Your task to perform on an android device: allow cookies in the chrome app Image 0: 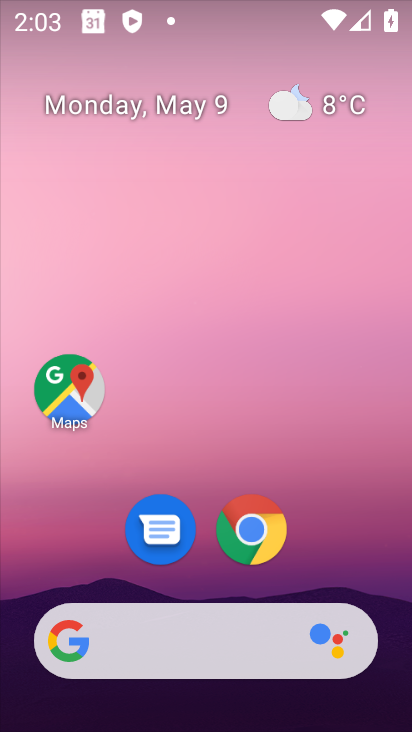
Step 0: click (267, 523)
Your task to perform on an android device: allow cookies in the chrome app Image 1: 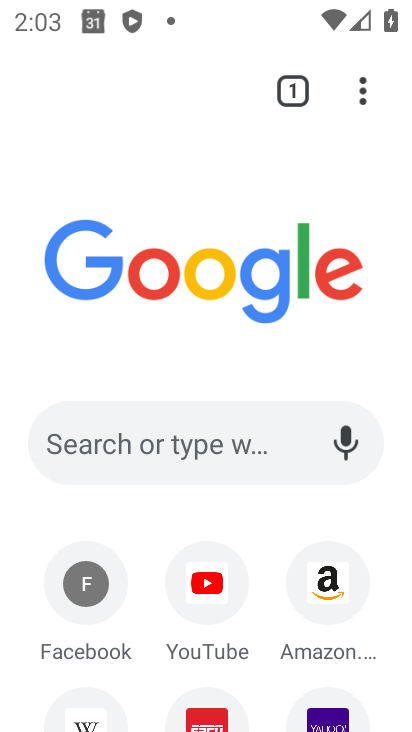
Step 1: click (358, 93)
Your task to perform on an android device: allow cookies in the chrome app Image 2: 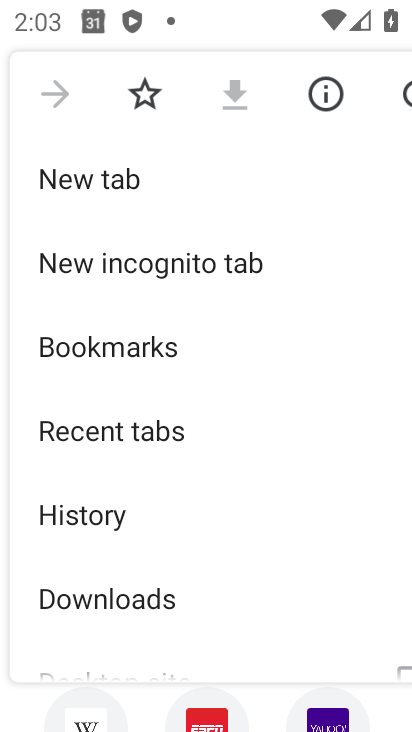
Step 2: drag from (225, 581) to (136, 184)
Your task to perform on an android device: allow cookies in the chrome app Image 3: 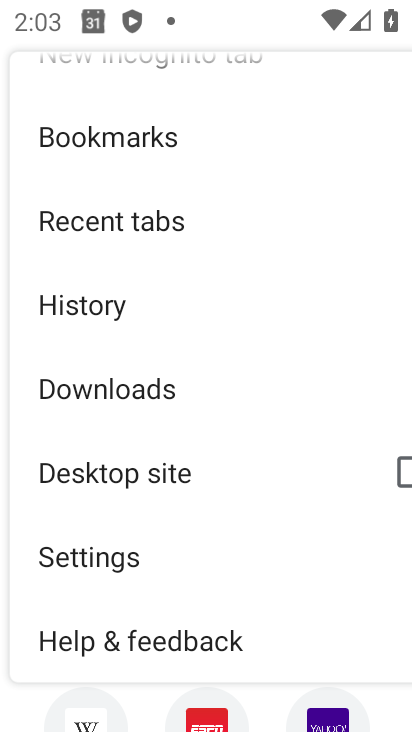
Step 3: click (131, 555)
Your task to perform on an android device: allow cookies in the chrome app Image 4: 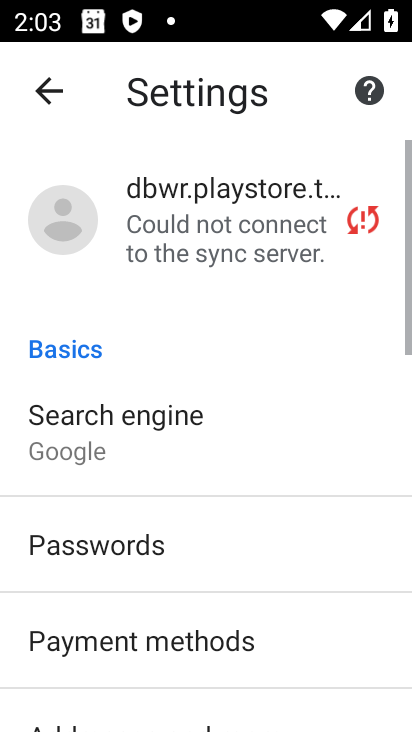
Step 4: drag from (145, 627) to (88, 143)
Your task to perform on an android device: allow cookies in the chrome app Image 5: 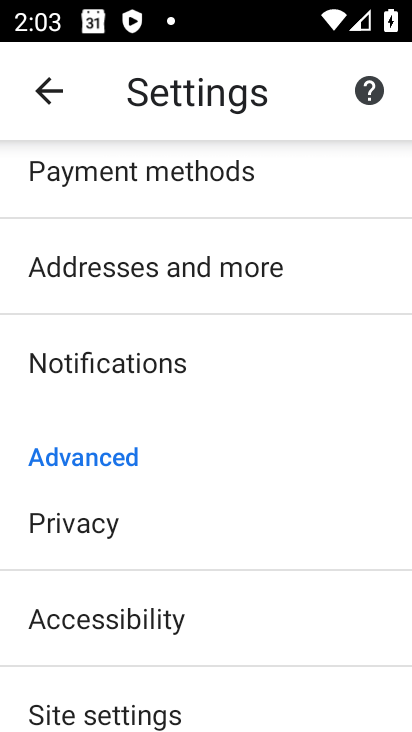
Step 5: click (143, 717)
Your task to perform on an android device: allow cookies in the chrome app Image 6: 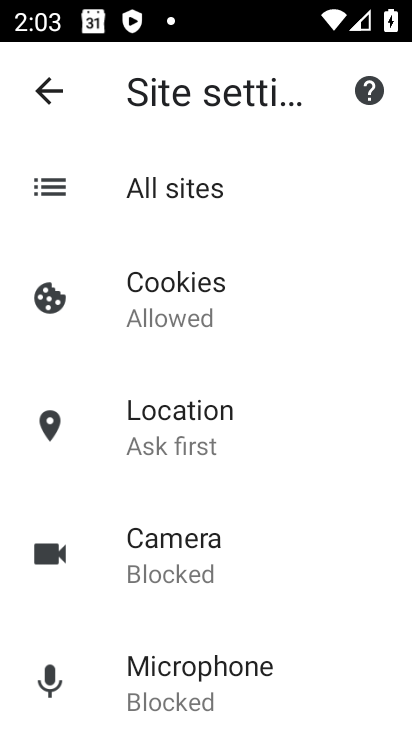
Step 6: click (191, 294)
Your task to perform on an android device: allow cookies in the chrome app Image 7: 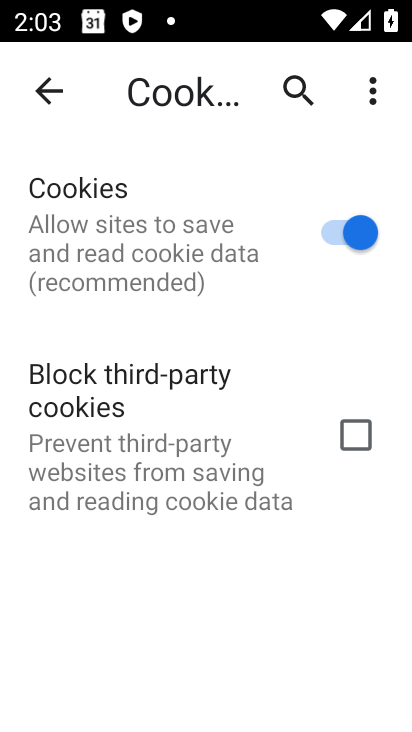
Step 7: task complete